Your task to perform on an android device: visit the assistant section in the google photos Image 0: 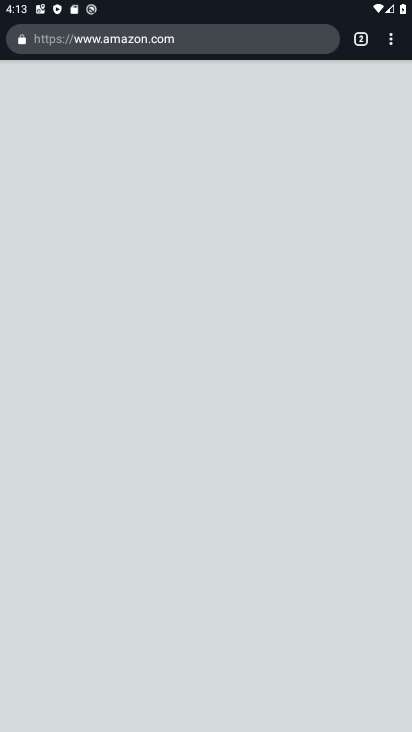
Step 0: press home button
Your task to perform on an android device: visit the assistant section in the google photos Image 1: 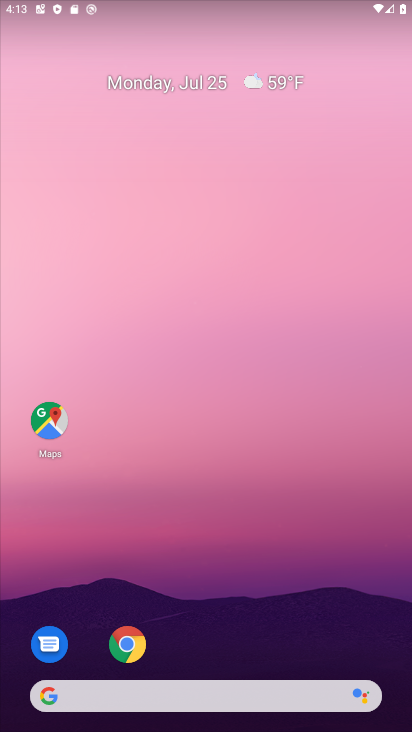
Step 1: drag from (156, 693) to (181, 28)
Your task to perform on an android device: visit the assistant section in the google photos Image 2: 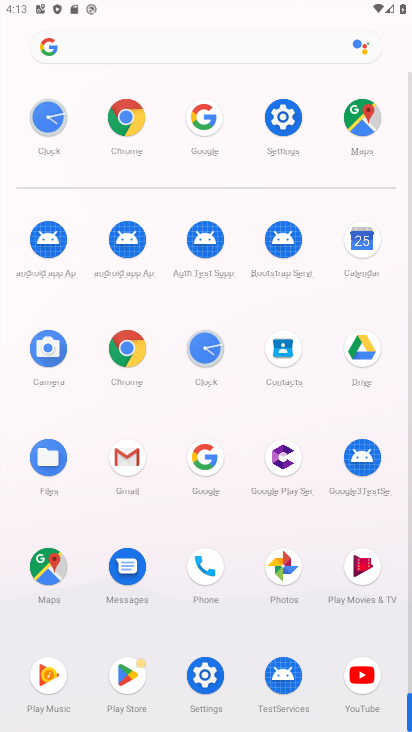
Step 2: click (291, 567)
Your task to perform on an android device: visit the assistant section in the google photos Image 3: 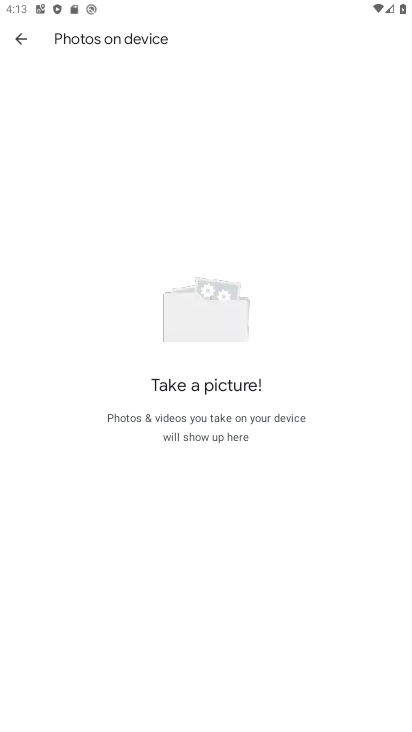
Step 3: click (14, 36)
Your task to perform on an android device: visit the assistant section in the google photos Image 4: 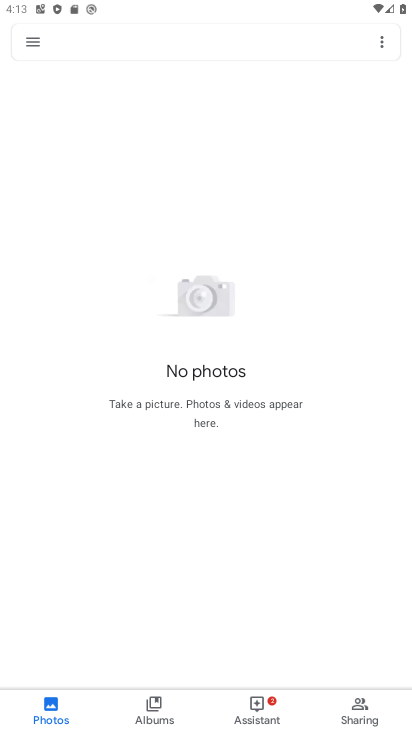
Step 4: click (266, 708)
Your task to perform on an android device: visit the assistant section in the google photos Image 5: 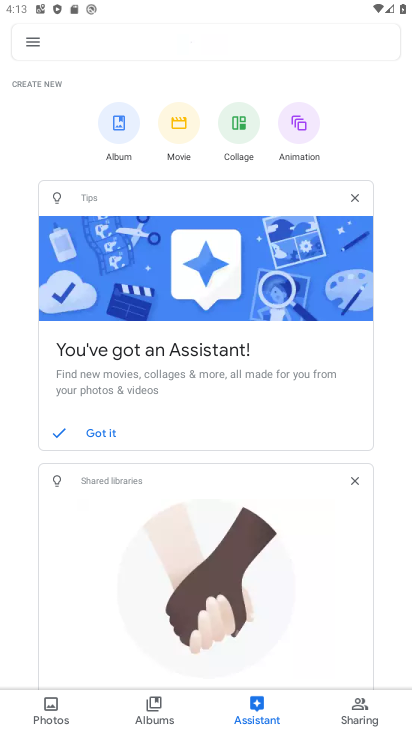
Step 5: task complete